Your task to perform on an android device: Open my contact list Image 0: 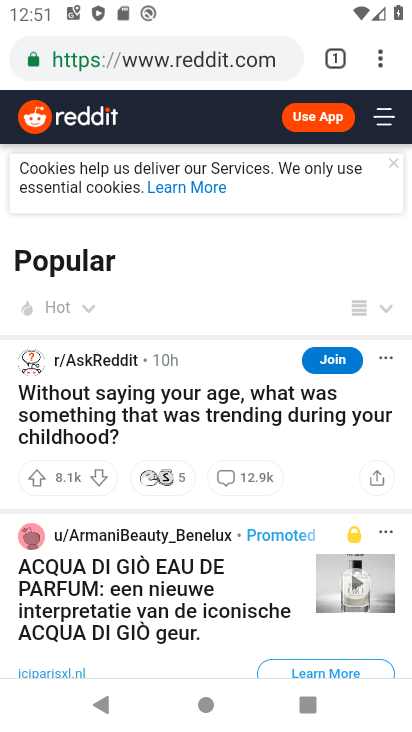
Step 0: press home button
Your task to perform on an android device: Open my contact list Image 1: 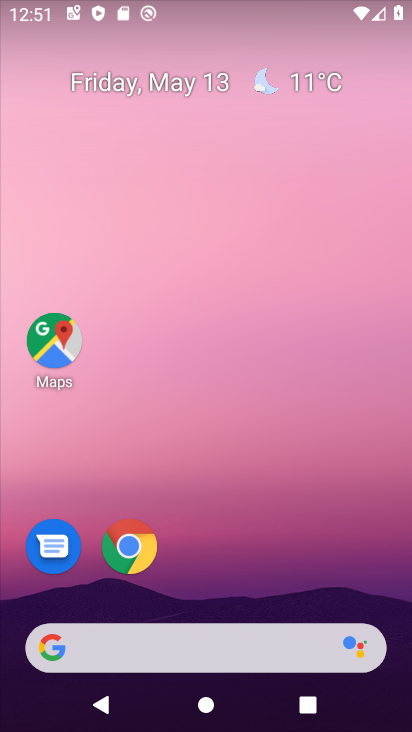
Step 1: drag from (280, 589) to (363, 103)
Your task to perform on an android device: Open my contact list Image 2: 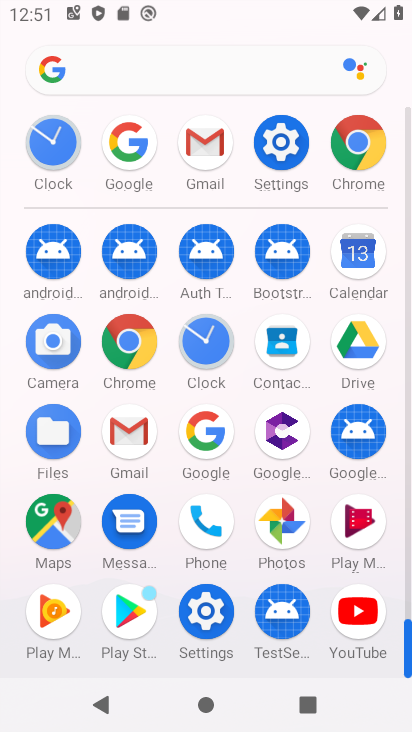
Step 2: click (282, 343)
Your task to perform on an android device: Open my contact list Image 3: 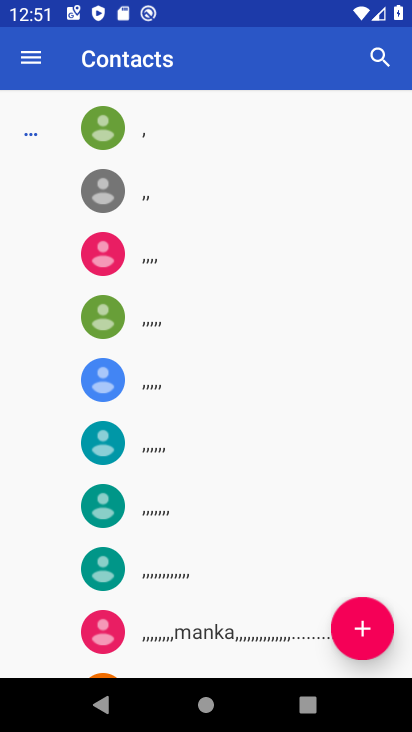
Step 3: task complete